Your task to perform on an android device: Search for seafood restaurants on Google Maps Image 0: 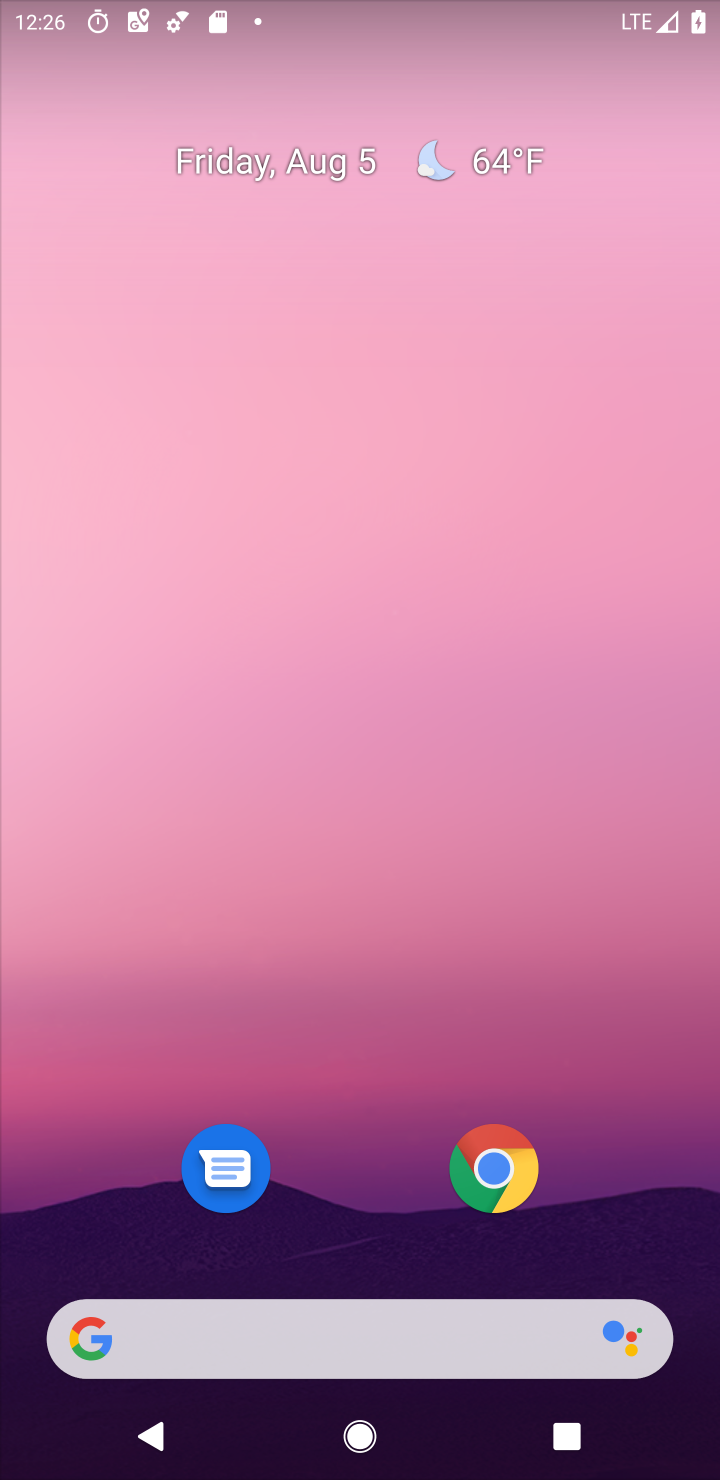
Step 0: drag from (375, 1269) to (365, 54)
Your task to perform on an android device: Search for seafood restaurants on Google Maps Image 1: 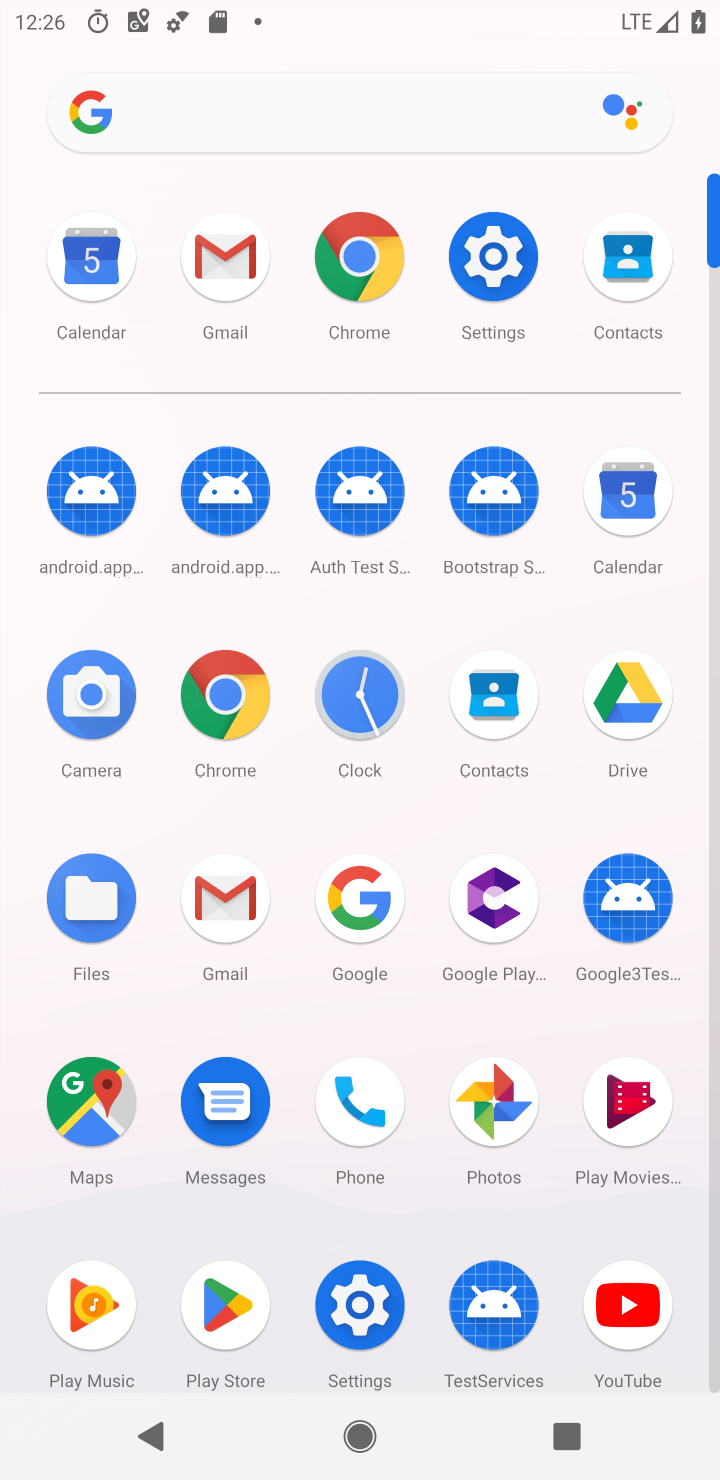
Step 1: click (79, 1106)
Your task to perform on an android device: Search for seafood restaurants on Google Maps Image 2: 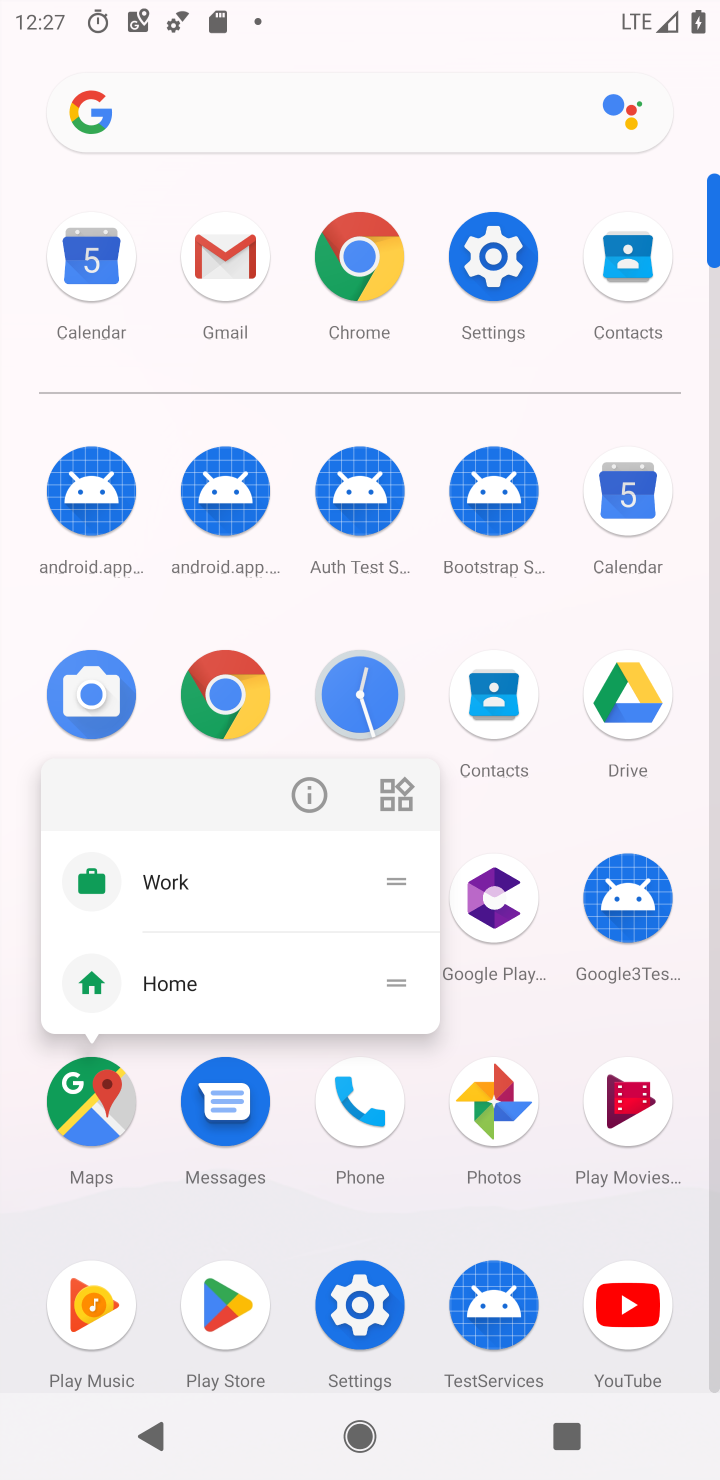
Step 2: click (71, 1101)
Your task to perform on an android device: Search for seafood restaurants on Google Maps Image 3: 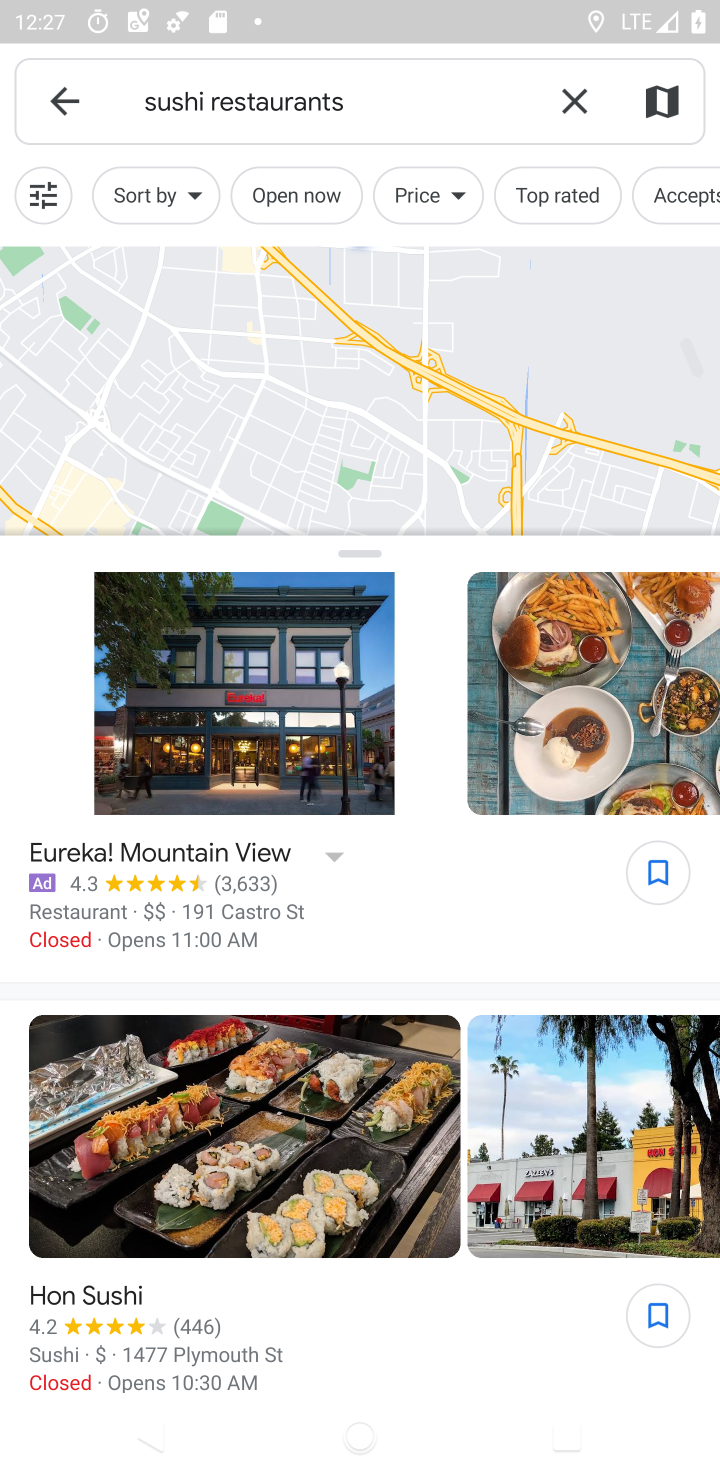
Step 3: click (178, 93)
Your task to perform on an android device: Search for seafood restaurants on Google Maps Image 4: 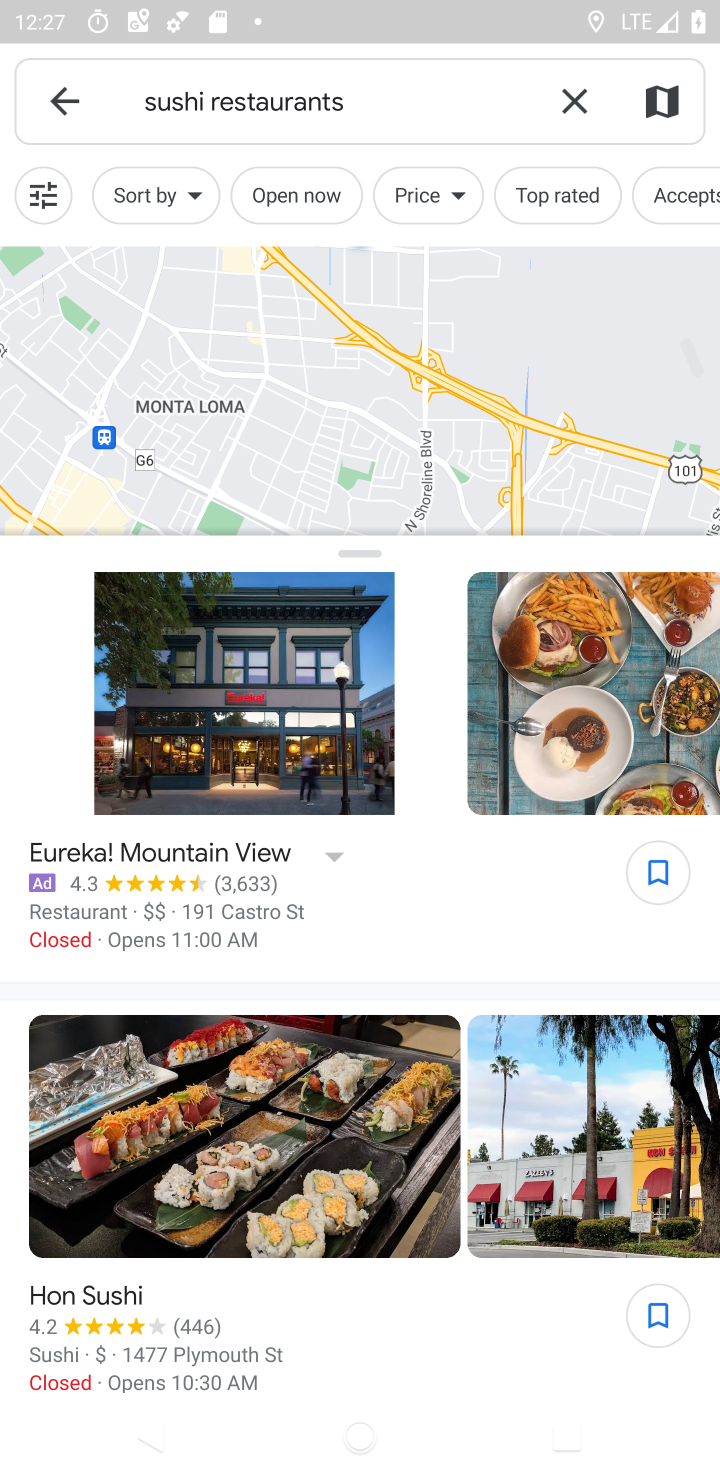
Step 4: click (174, 105)
Your task to perform on an android device: Search for seafood restaurants on Google Maps Image 5: 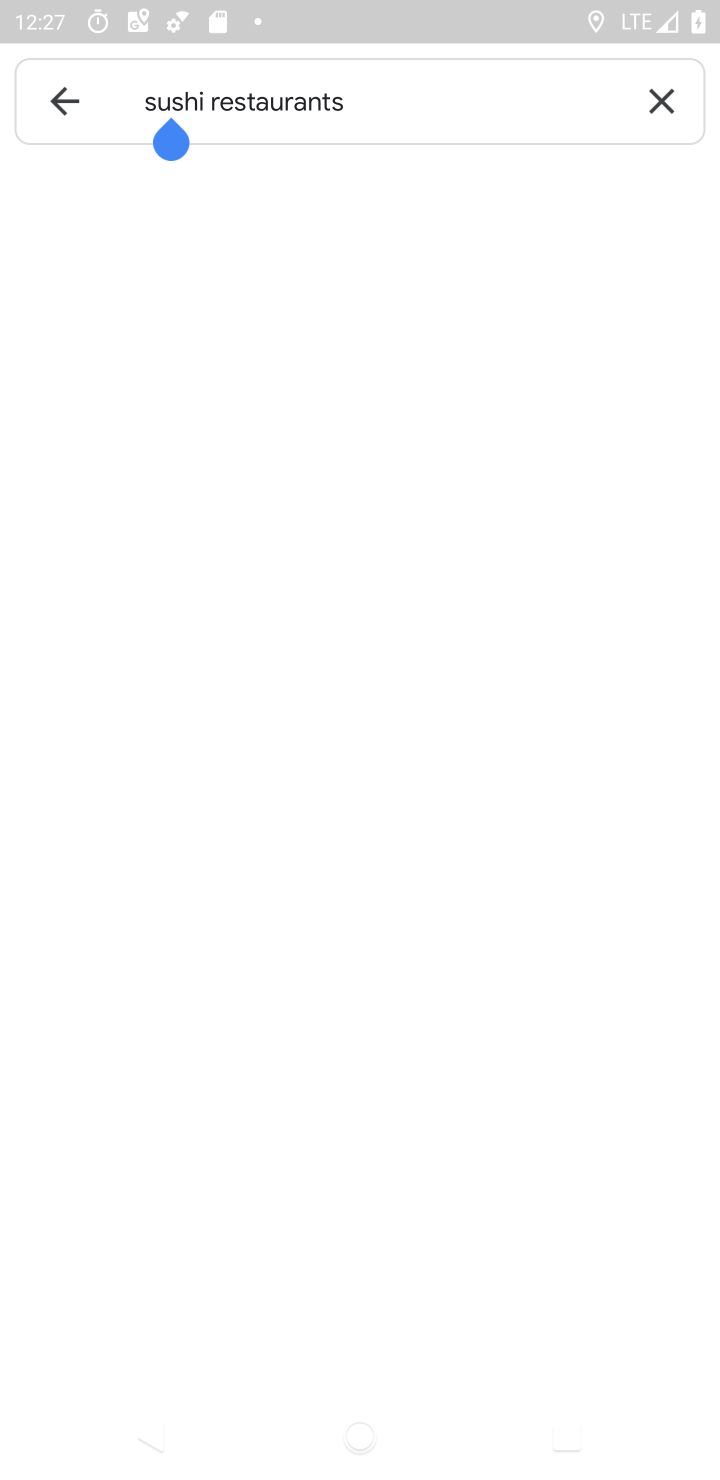
Step 5: click (167, 111)
Your task to perform on an android device: Search for seafood restaurants on Google Maps Image 6: 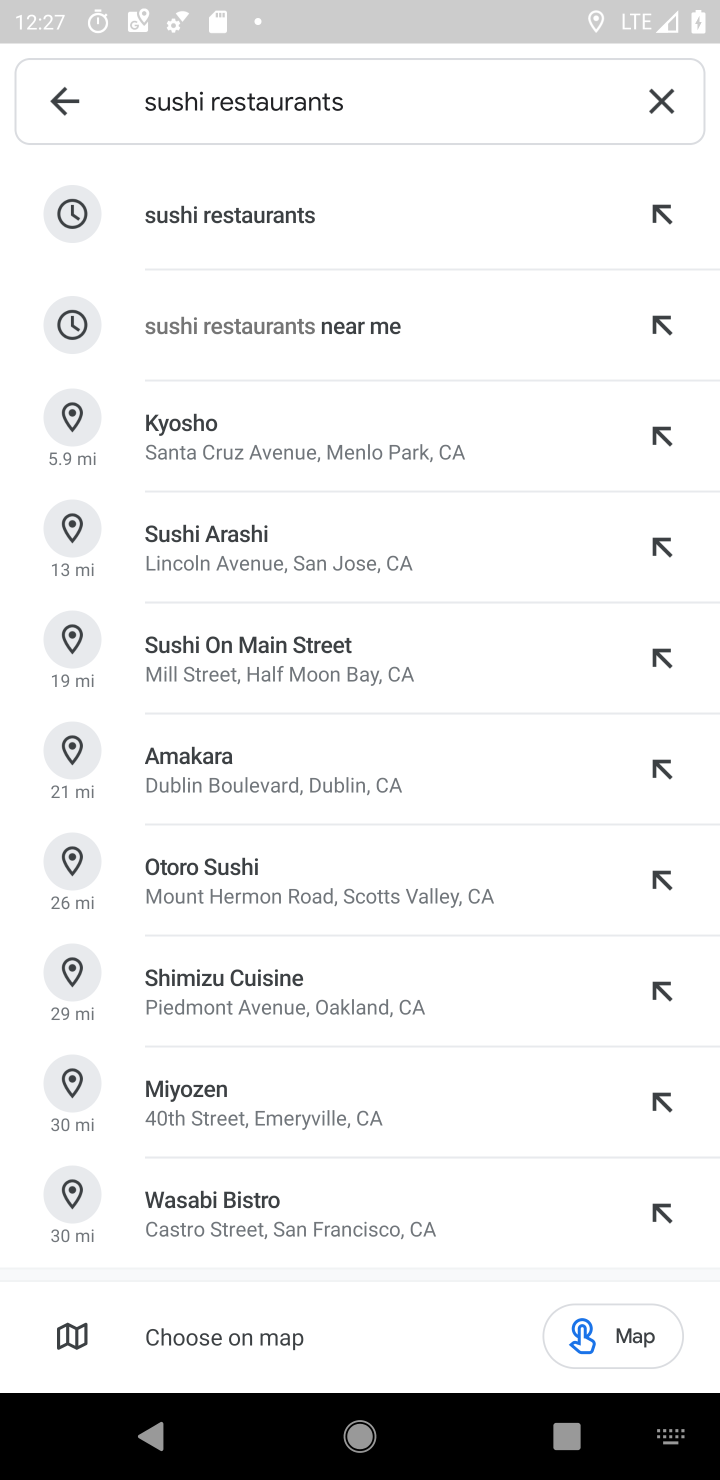
Step 6: click (172, 111)
Your task to perform on an android device: Search for seafood restaurants on Google Maps Image 7: 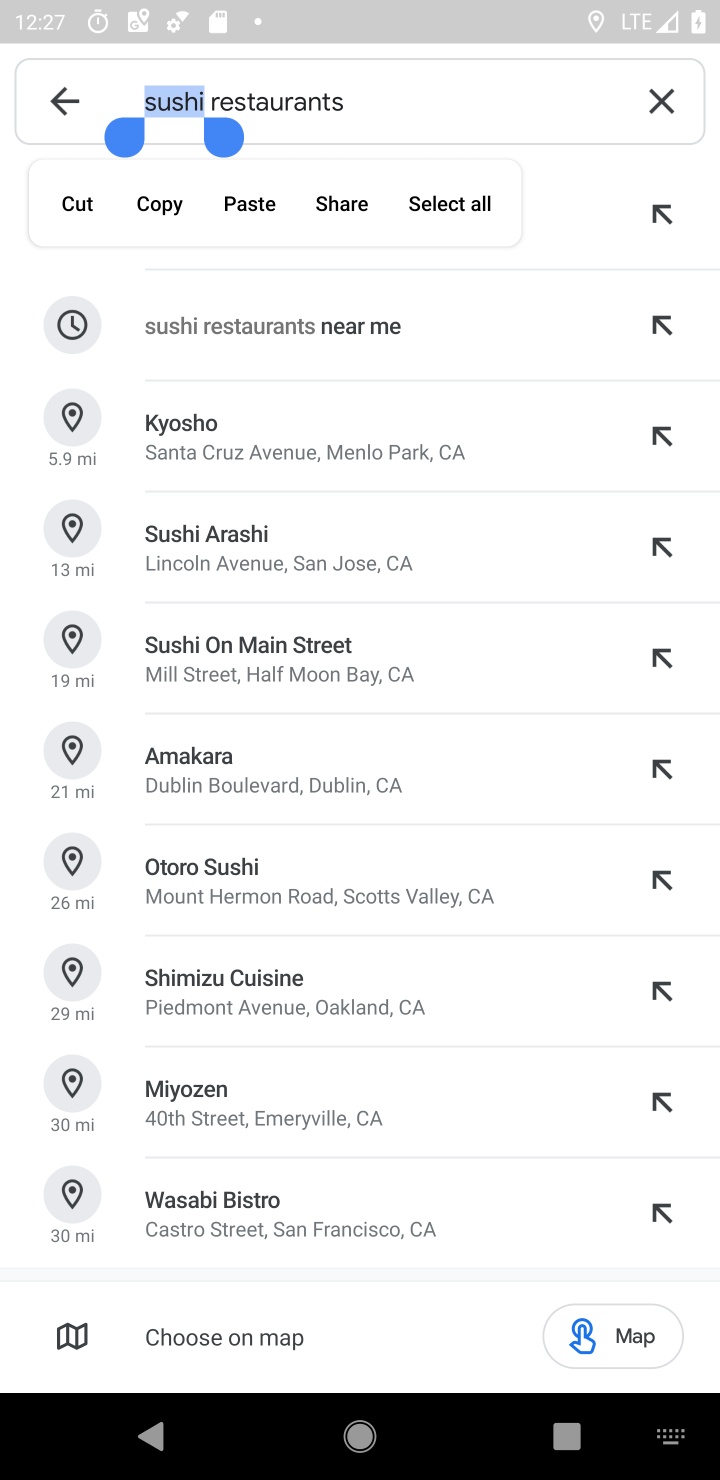
Step 7: type "seafood"
Your task to perform on an android device: Search for seafood restaurants on Google Maps Image 8: 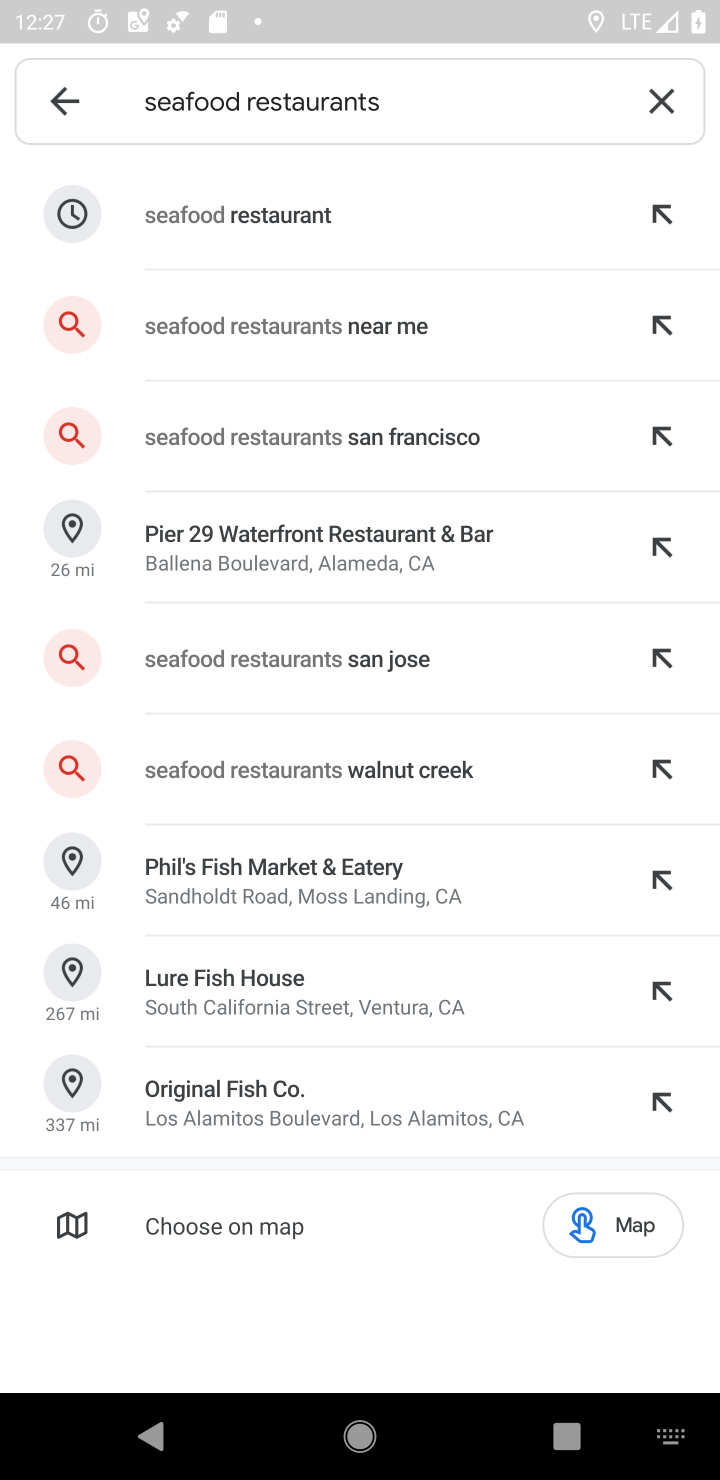
Step 8: click (245, 216)
Your task to perform on an android device: Search for seafood restaurants on Google Maps Image 9: 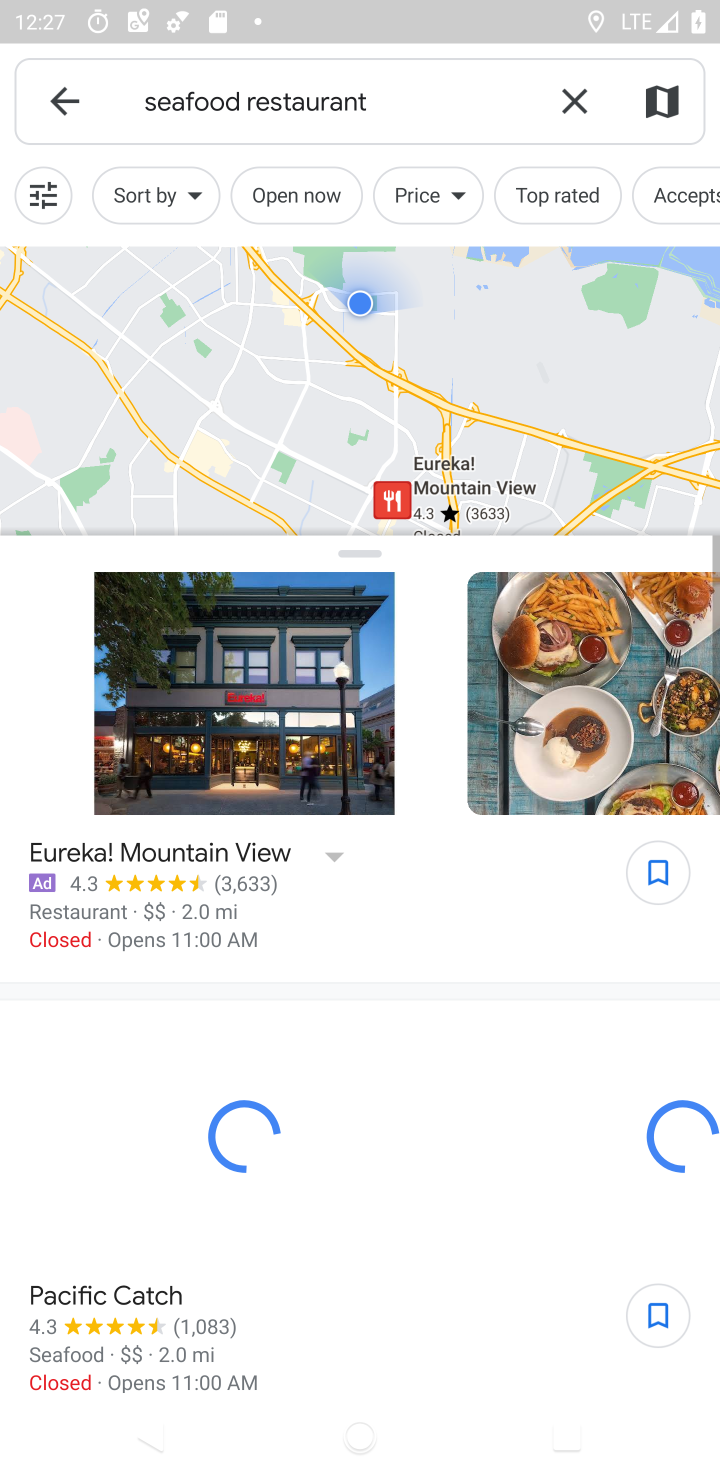
Step 9: task complete